Your task to perform on an android device: open app "Roku - Official Remote Control" (install if not already installed) and go to login screen Image 0: 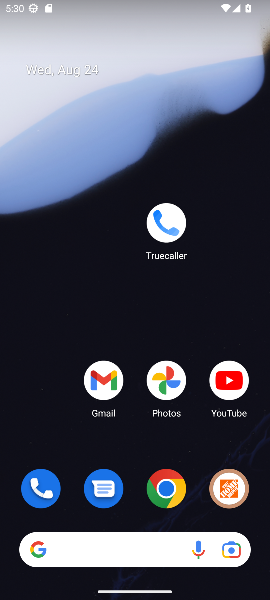
Step 0: drag from (135, 338) to (134, 138)
Your task to perform on an android device: open app "Roku - Official Remote Control" (install if not already installed) and go to login screen Image 1: 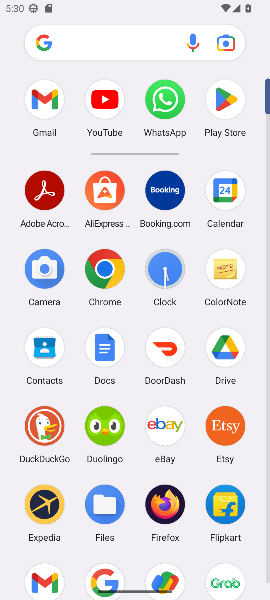
Step 1: click (216, 95)
Your task to perform on an android device: open app "Roku - Official Remote Control" (install if not already installed) and go to login screen Image 2: 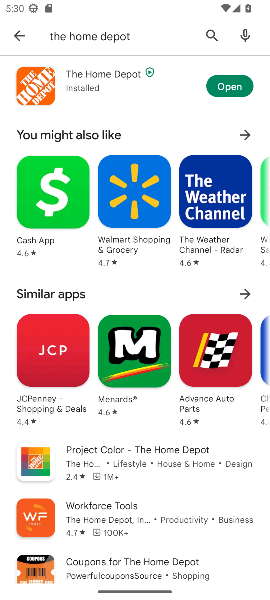
Step 2: click (205, 30)
Your task to perform on an android device: open app "Roku - Official Remote Control" (install if not already installed) and go to login screen Image 3: 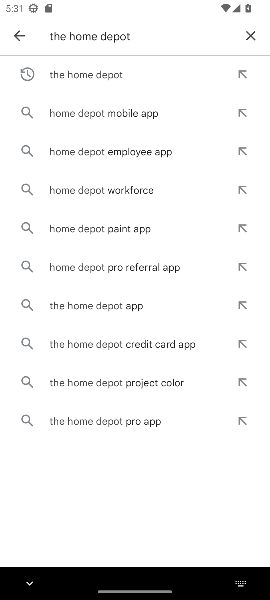
Step 3: click (244, 48)
Your task to perform on an android device: open app "Roku - Official Remote Control" (install if not already installed) and go to login screen Image 4: 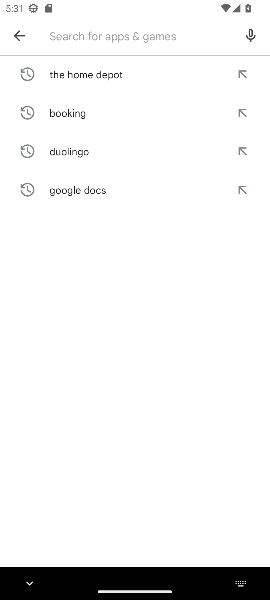
Step 4: type "roku"
Your task to perform on an android device: open app "Roku - Official Remote Control" (install if not already installed) and go to login screen Image 5: 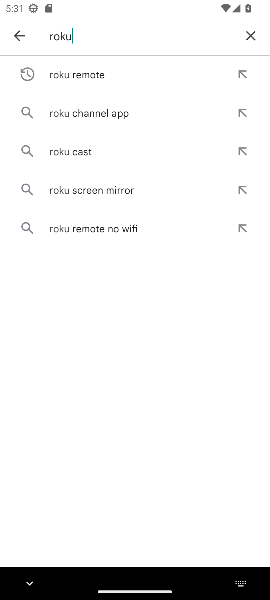
Step 5: click (132, 80)
Your task to perform on an android device: open app "Roku - Official Remote Control" (install if not already installed) and go to login screen Image 6: 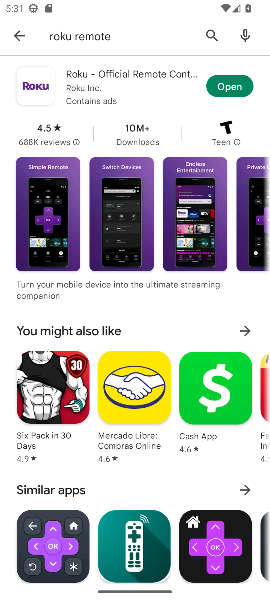
Step 6: click (238, 89)
Your task to perform on an android device: open app "Roku - Official Remote Control" (install if not already installed) and go to login screen Image 7: 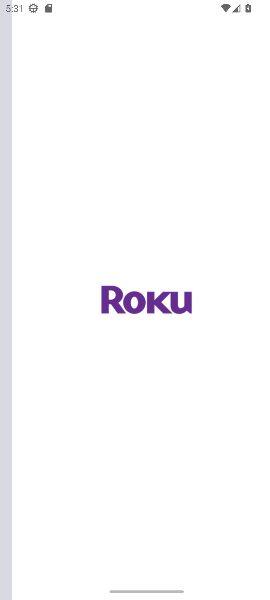
Step 7: task complete